Your task to perform on an android device: add a label to a message in the gmail app Image 0: 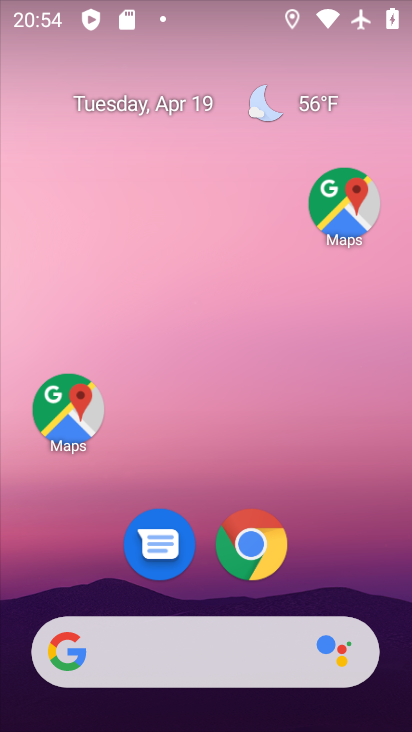
Step 0: drag from (167, 643) to (305, 43)
Your task to perform on an android device: add a label to a message in the gmail app Image 1: 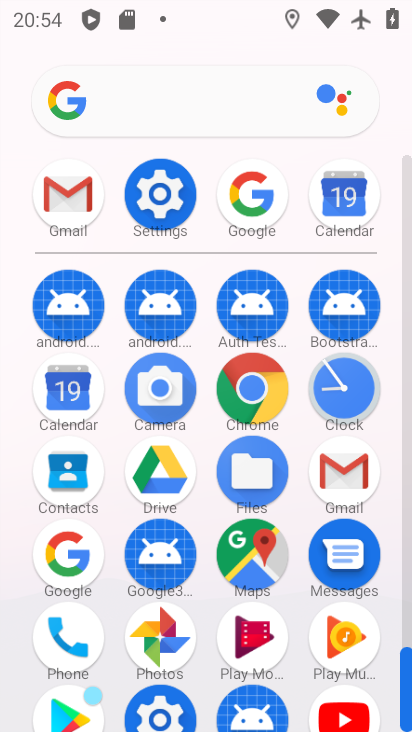
Step 1: click (77, 207)
Your task to perform on an android device: add a label to a message in the gmail app Image 2: 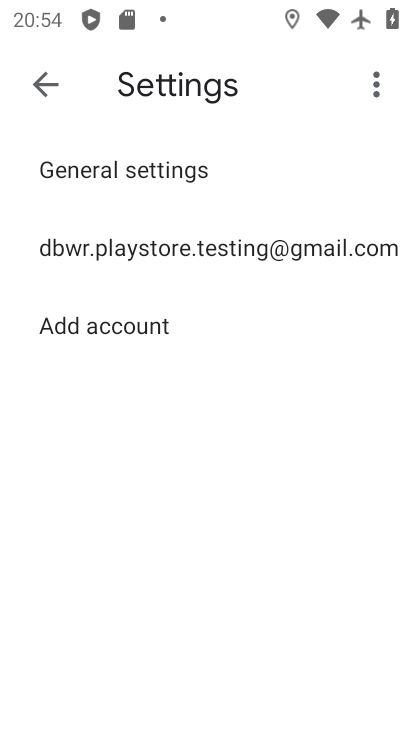
Step 2: click (53, 87)
Your task to perform on an android device: add a label to a message in the gmail app Image 3: 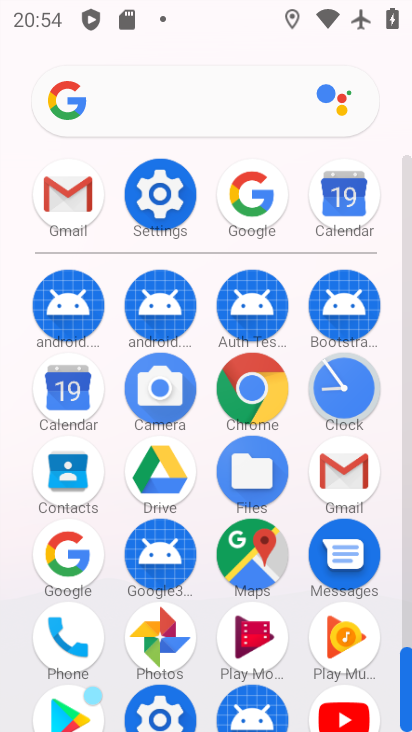
Step 3: click (69, 202)
Your task to perform on an android device: add a label to a message in the gmail app Image 4: 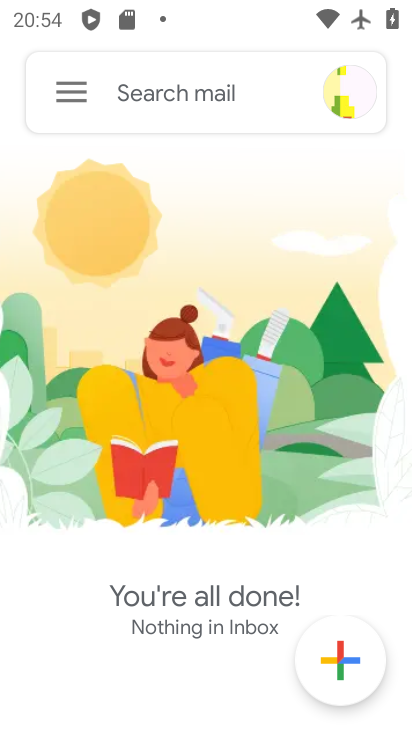
Step 4: task complete